Your task to perform on an android device: Go to sound settings Image 0: 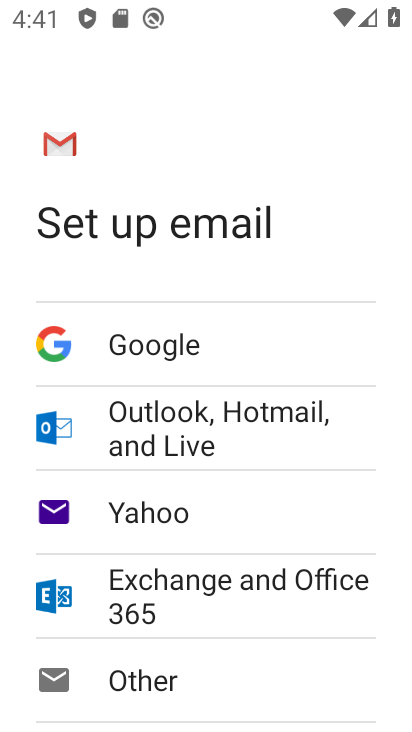
Step 0: press home button
Your task to perform on an android device: Go to sound settings Image 1: 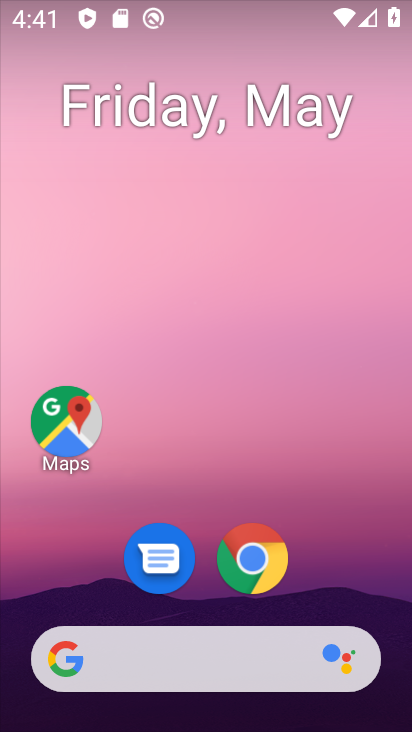
Step 1: drag from (354, 608) to (310, 194)
Your task to perform on an android device: Go to sound settings Image 2: 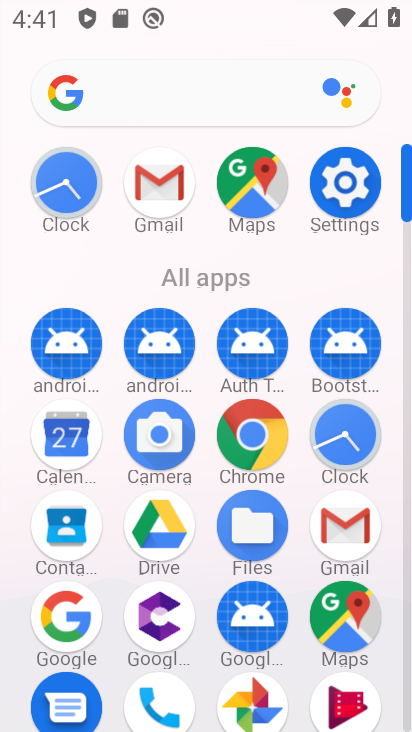
Step 2: click (344, 196)
Your task to perform on an android device: Go to sound settings Image 3: 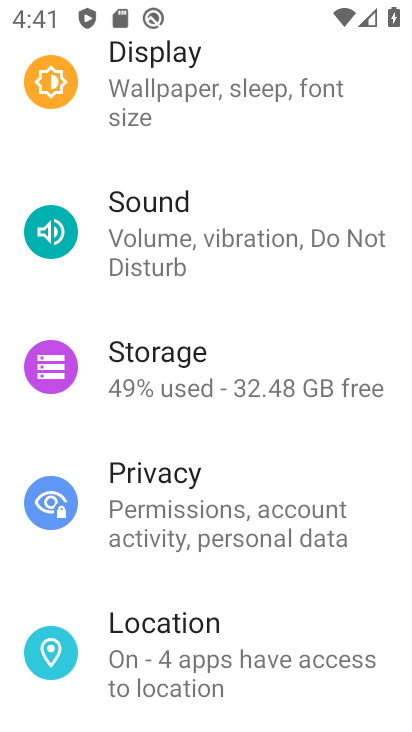
Step 3: click (242, 229)
Your task to perform on an android device: Go to sound settings Image 4: 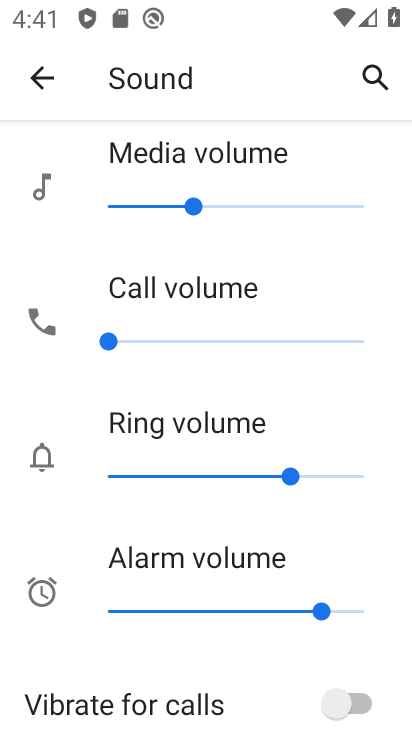
Step 4: task complete